Your task to perform on an android device: open chrome privacy settings Image 0: 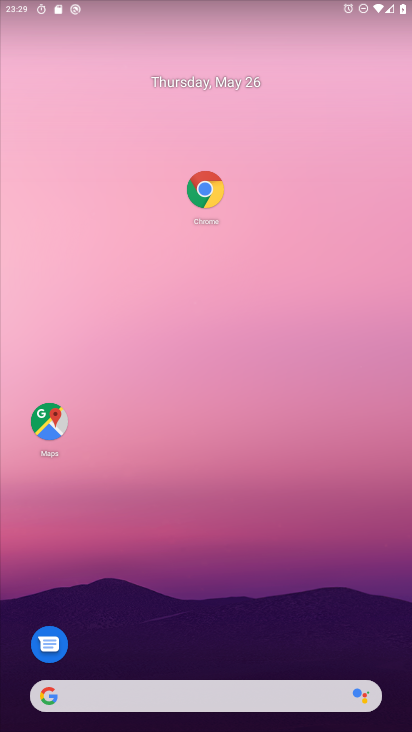
Step 0: drag from (199, 523) to (313, 140)
Your task to perform on an android device: open chrome privacy settings Image 1: 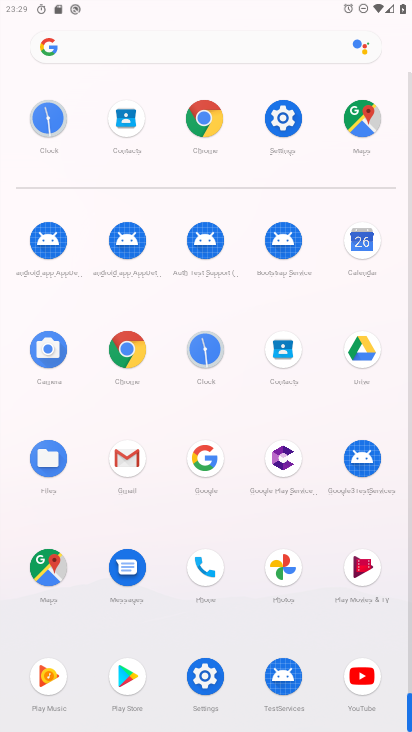
Step 1: click (288, 115)
Your task to perform on an android device: open chrome privacy settings Image 2: 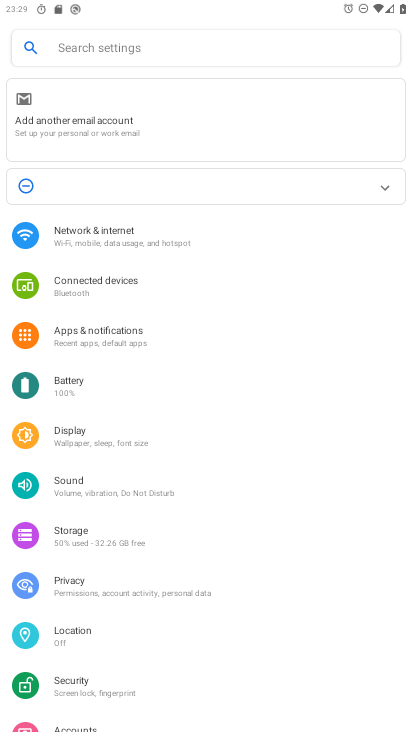
Step 2: drag from (183, 600) to (280, 244)
Your task to perform on an android device: open chrome privacy settings Image 3: 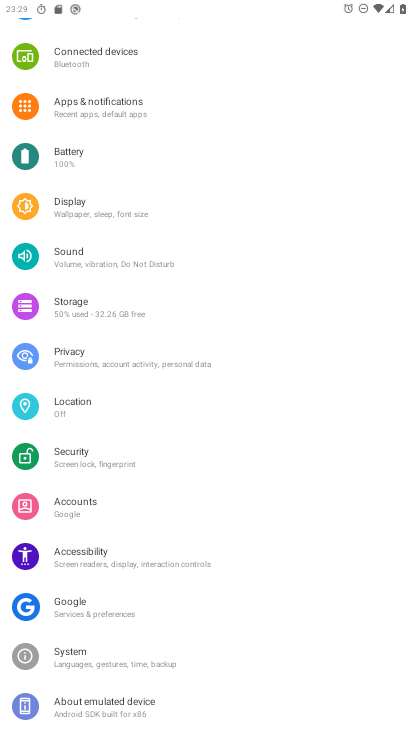
Step 3: click (114, 366)
Your task to perform on an android device: open chrome privacy settings Image 4: 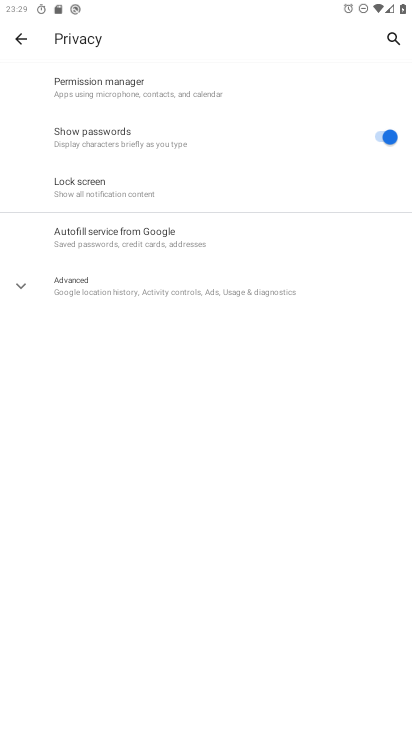
Step 4: task complete